Your task to perform on an android device: open device folders in google photos Image 0: 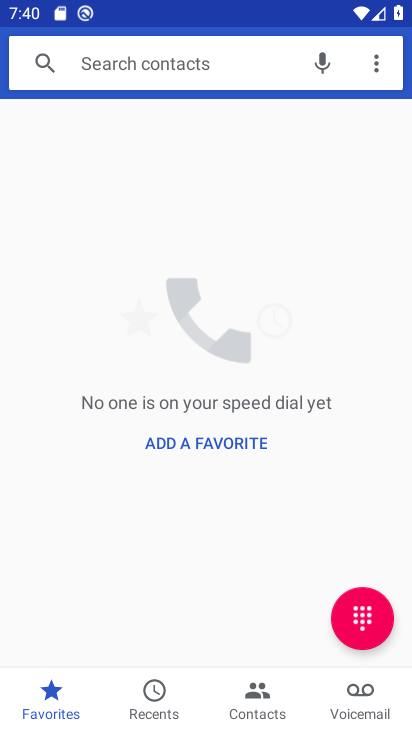
Step 0: press home button
Your task to perform on an android device: open device folders in google photos Image 1: 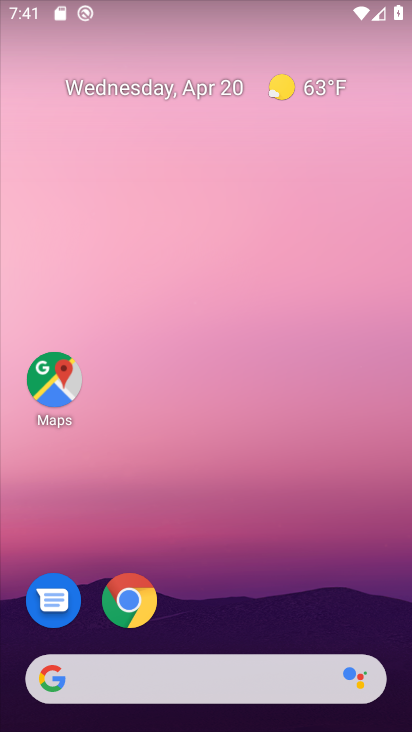
Step 1: drag from (196, 584) to (200, 52)
Your task to perform on an android device: open device folders in google photos Image 2: 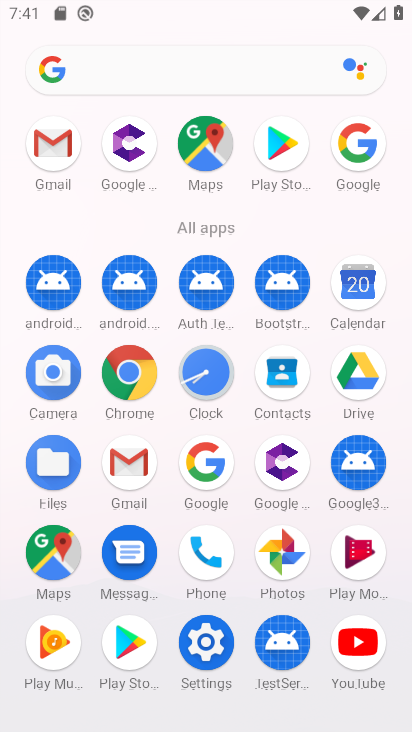
Step 2: click (282, 553)
Your task to perform on an android device: open device folders in google photos Image 3: 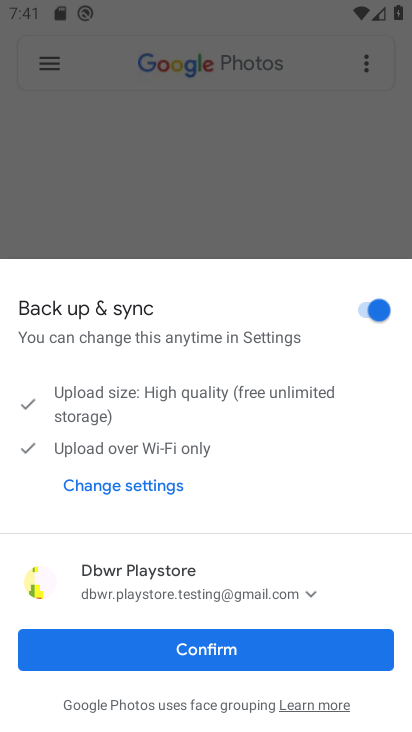
Step 3: click (204, 655)
Your task to perform on an android device: open device folders in google photos Image 4: 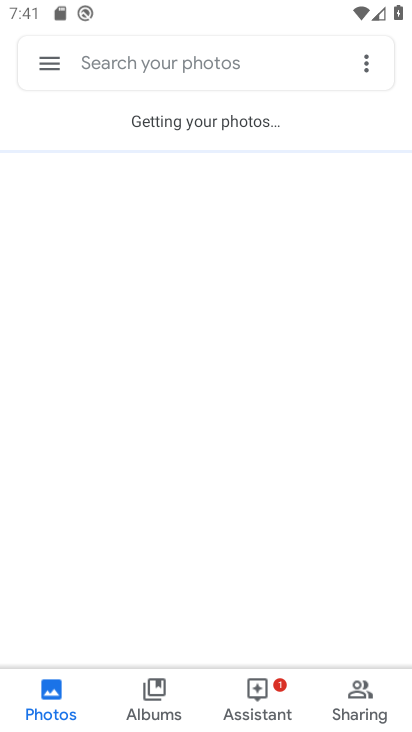
Step 4: click (49, 65)
Your task to perform on an android device: open device folders in google photos Image 5: 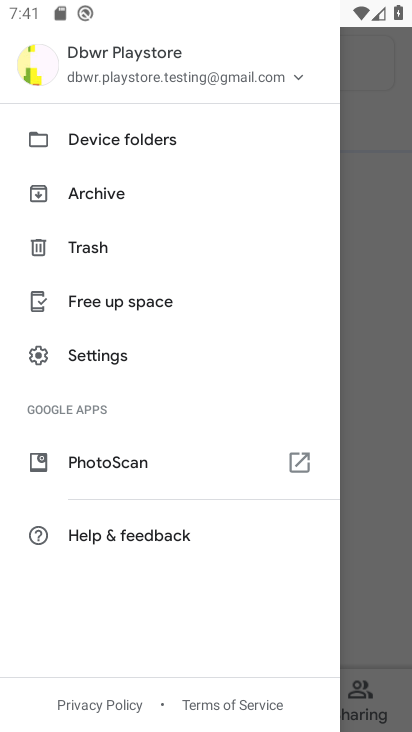
Step 5: click (71, 137)
Your task to perform on an android device: open device folders in google photos Image 6: 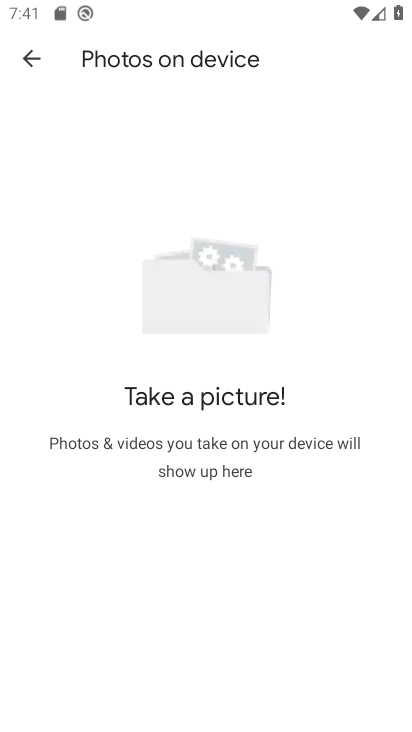
Step 6: task complete